Your task to perform on an android device: turn off javascript in the chrome app Image 0: 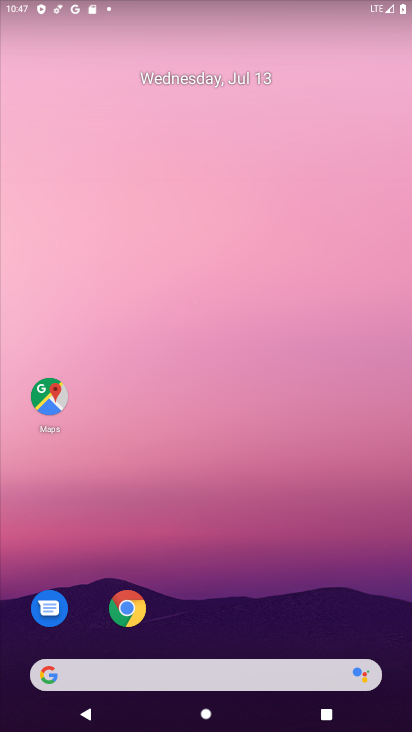
Step 0: click (129, 618)
Your task to perform on an android device: turn off javascript in the chrome app Image 1: 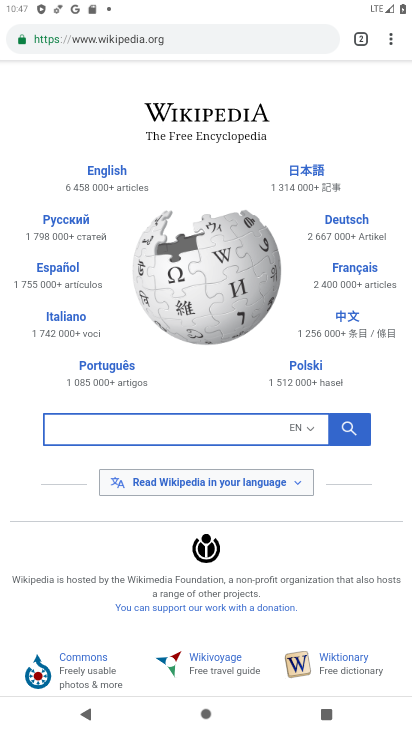
Step 1: click (392, 45)
Your task to perform on an android device: turn off javascript in the chrome app Image 2: 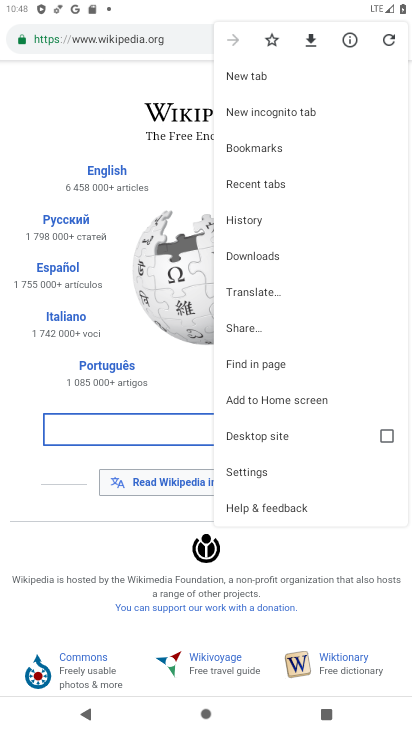
Step 2: click (262, 472)
Your task to perform on an android device: turn off javascript in the chrome app Image 3: 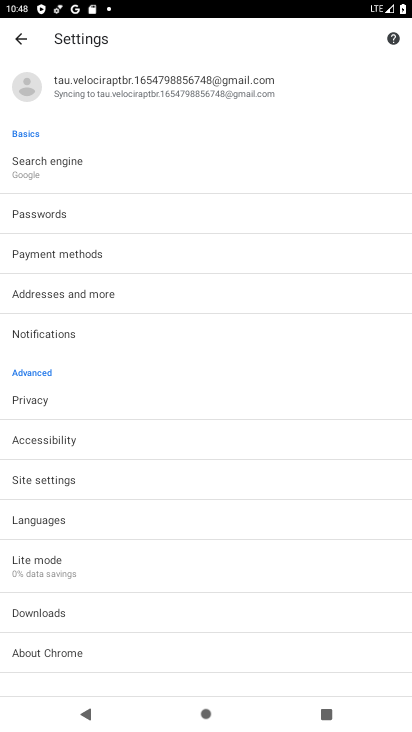
Step 3: click (79, 479)
Your task to perform on an android device: turn off javascript in the chrome app Image 4: 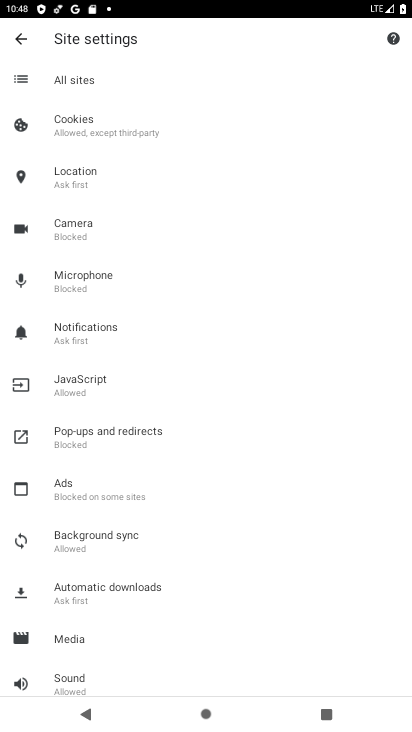
Step 4: click (98, 374)
Your task to perform on an android device: turn off javascript in the chrome app Image 5: 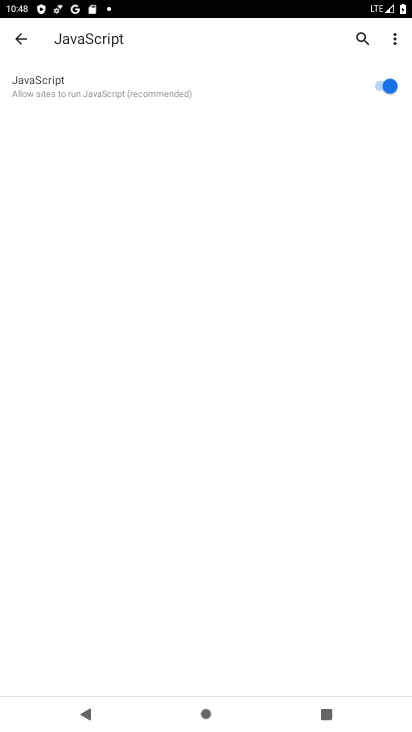
Step 5: click (384, 81)
Your task to perform on an android device: turn off javascript in the chrome app Image 6: 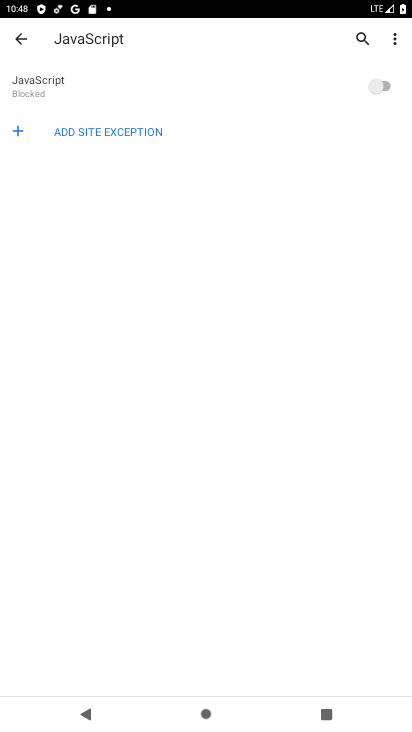
Step 6: task complete